Your task to perform on an android device: Open the calendar and show me this week's events Image 0: 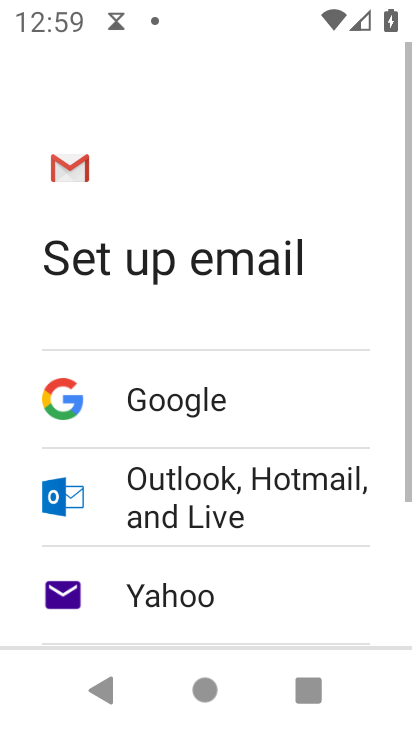
Step 0: press back button
Your task to perform on an android device: Open the calendar and show me this week's events Image 1: 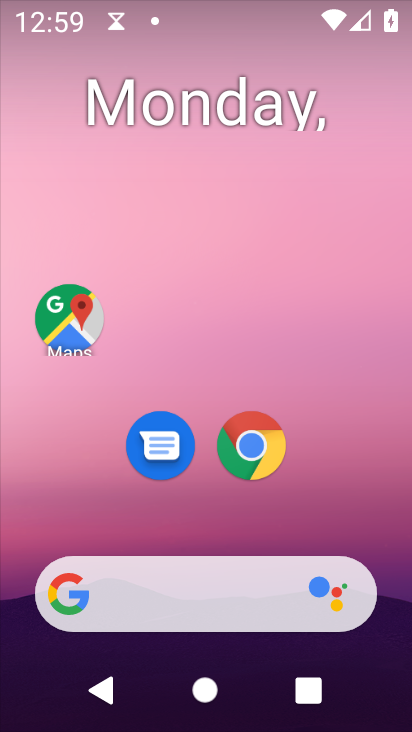
Step 1: drag from (312, 611) to (176, 307)
Your task to perform on an android device: Open the calendar and show me this week's events Image 2: 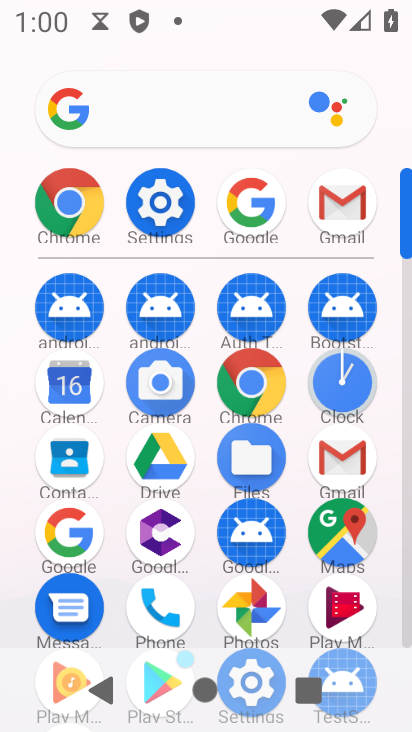
Step 2: click (70, 380)
Your task to perform on an android device: Open the calendar and show me this week's events Image 3: 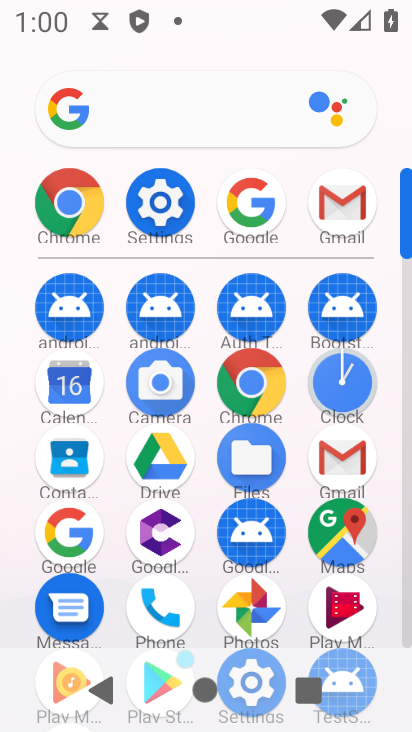
Step 3: click (70, 380)
Your task to perform on an android device: Open the calendar and show me this week's events Image 4: 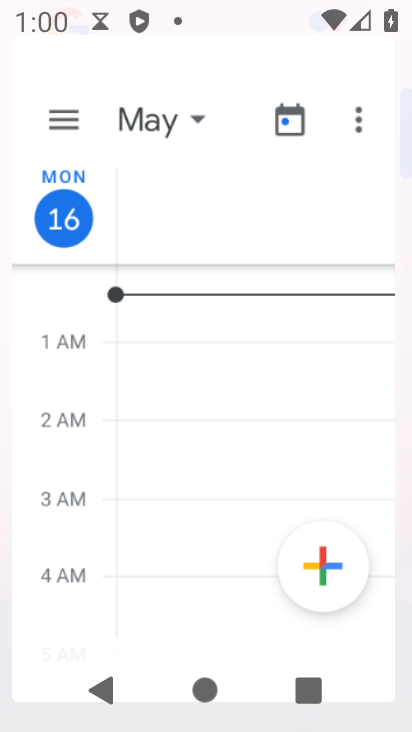
Step 4: click (69, 380)
Your task to perform on an android device: Open the calendar and show me this week's events Image 5: 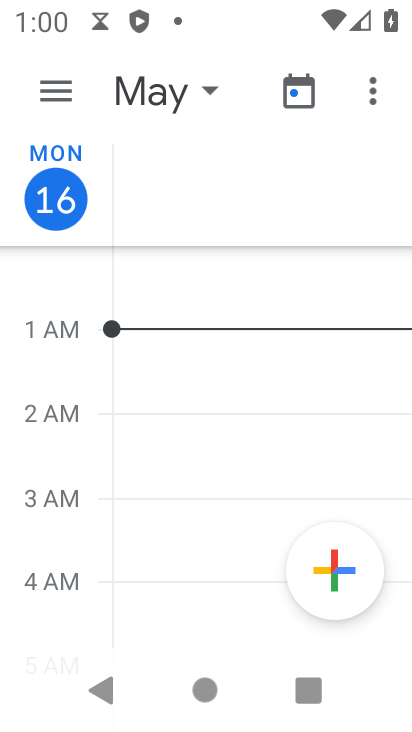
Step 5: click (49, 93)
Your task to perform on an android device: Open the calendar and show me this week's events Image 6: 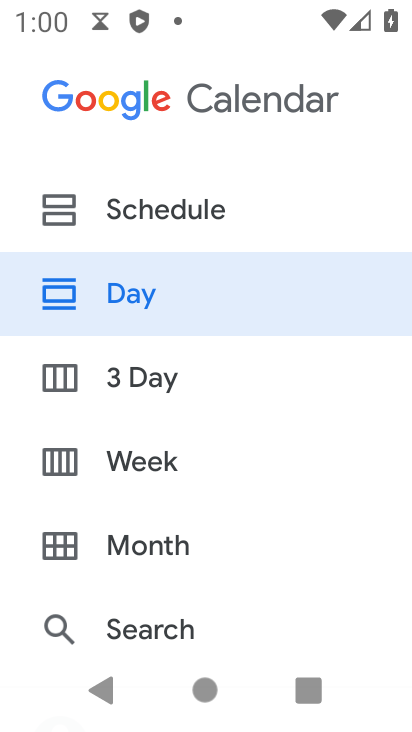
Step 6: click (152, 202)
Your task to perform on an android device: Open the calendar and show me this week's events Image 7: 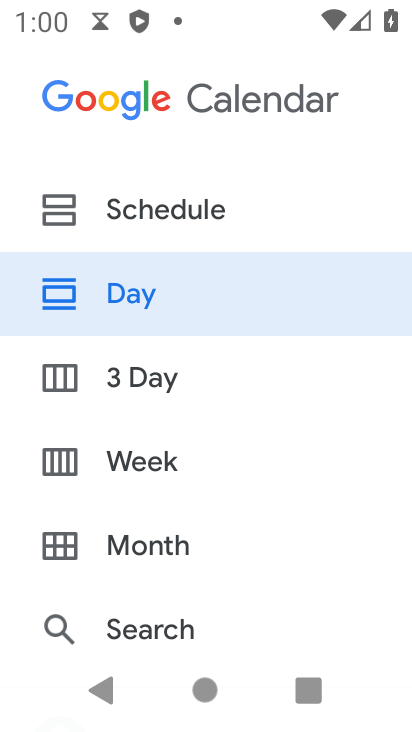
Step 7: click (152, 202)
Your task to perform on an android device: Open the calendar and show me this week's events Image 8: 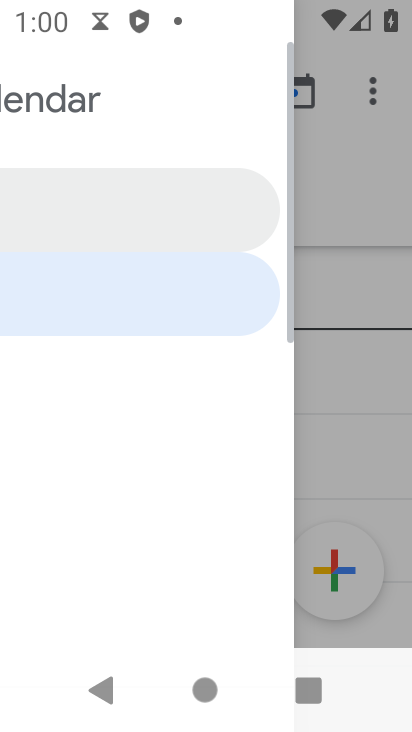
Step 8: click (152, 203)
Your task to perform on an android device: Open the calendar and show me this week's events Image 9: 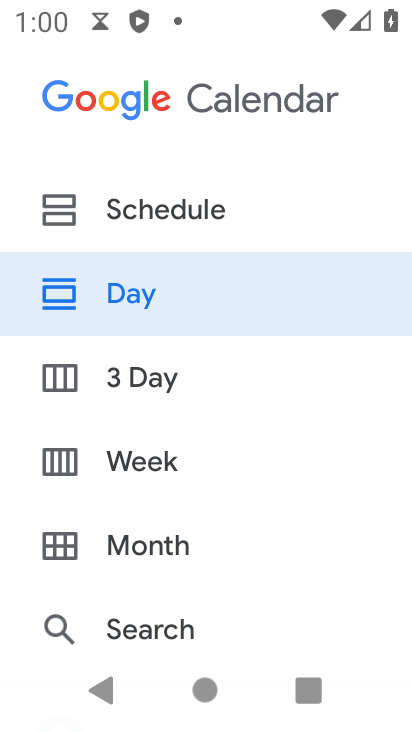
Step 9: click (152, 213)
Your task to perform on an android device: Open the calendar and show me this week's events Image 10: 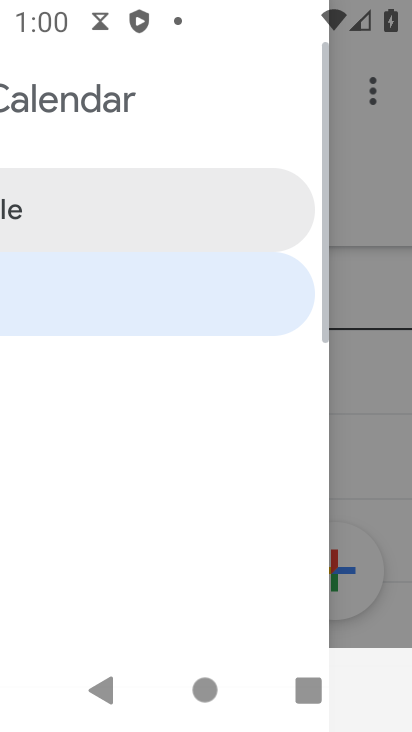
Step 10: click (154, 215)
Your task to perform on an android device: Open the calendar and show me this week's events Image 11: 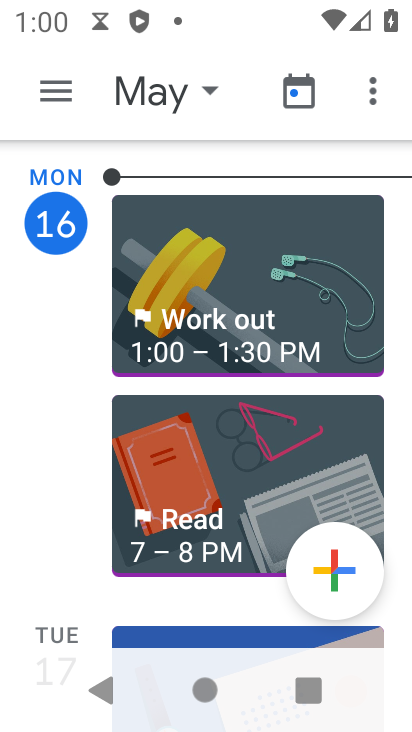
Step 11: drag from (180, 528) to (147, 161)
Your task to perform on an android device: Open the calendar and show me this week's events Image 12: 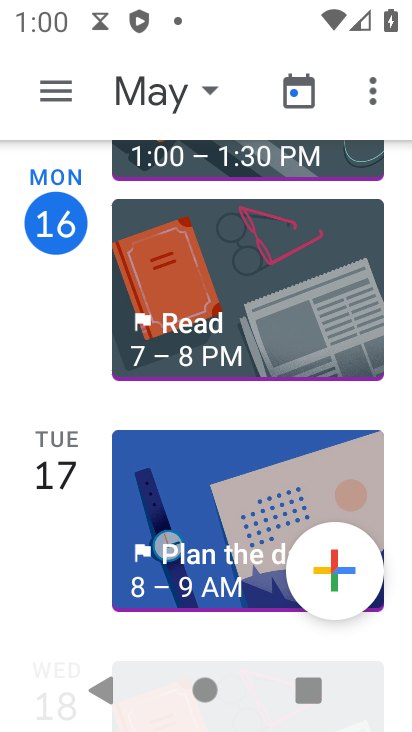
Step 12: drag from (252, 497) to (228, 179)
Your task to perform on an android device: Open the calendar and show me this week's events Image 13: 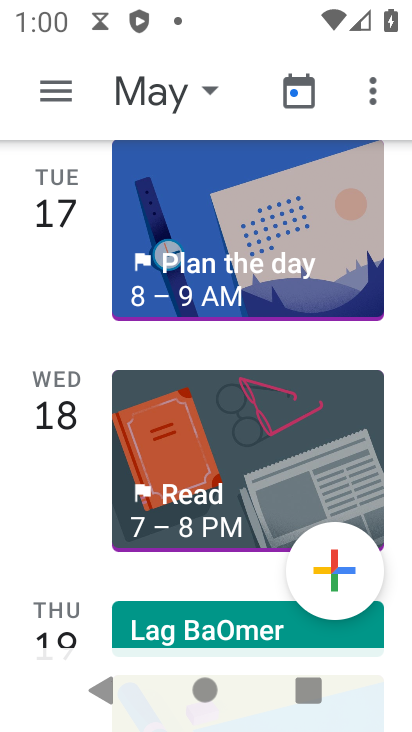
Step 13: drag from (237, 417) to (320, 62)
Your task to perform on an android device: Open the calendar and show me this week's events Image 14: 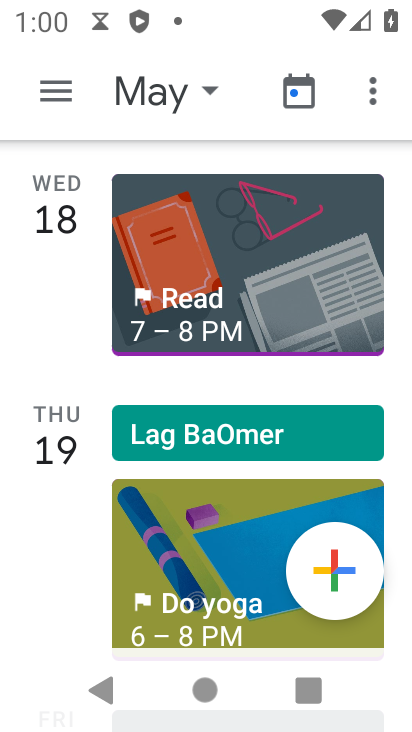
Step 14: drag from (212, 522) to (278, 108)
Your task to perform on an android device: Open the calendar and show me this week's events Image 15: 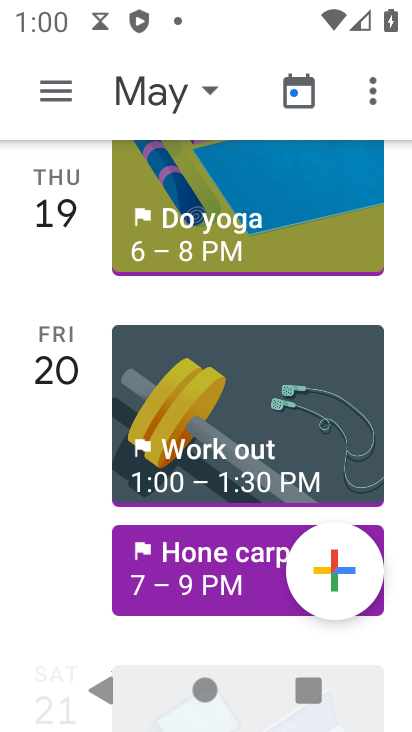
Step 15: drag from (193, 527) to (237, 162)
Your task to perform on an android device: Open the calendar and show me this week's events Image 16: 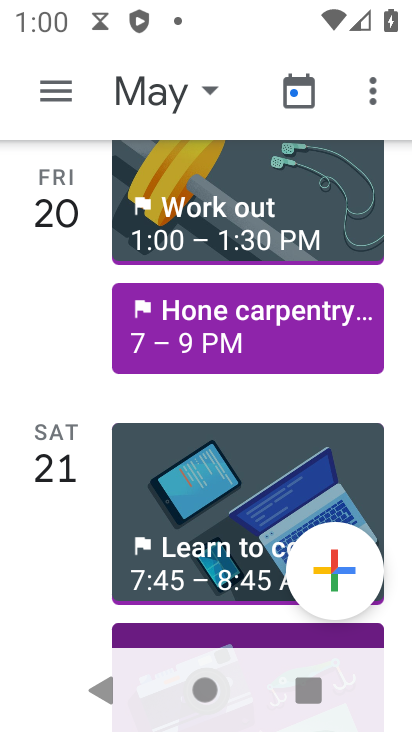
Step 16: click (207, 504)
Your task to perform on an android device: Open the calendar and show me this week's events Image 17: 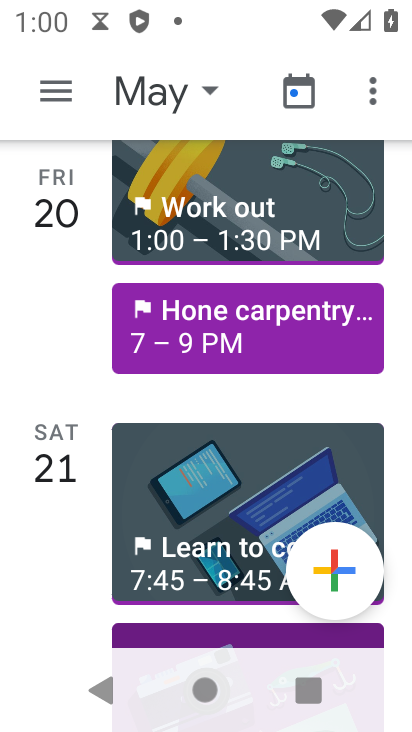
Step 17: click (207, 504)
Your task to perform on an android device: Open the calendar and show me this week's events Image 18: 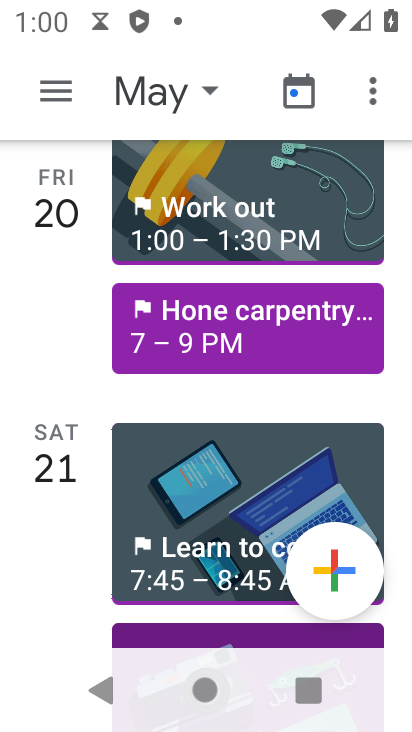
Step 18: click (206, 505)
Your task to perform on an android device: Open the calendar and show me this week's events Image 19: 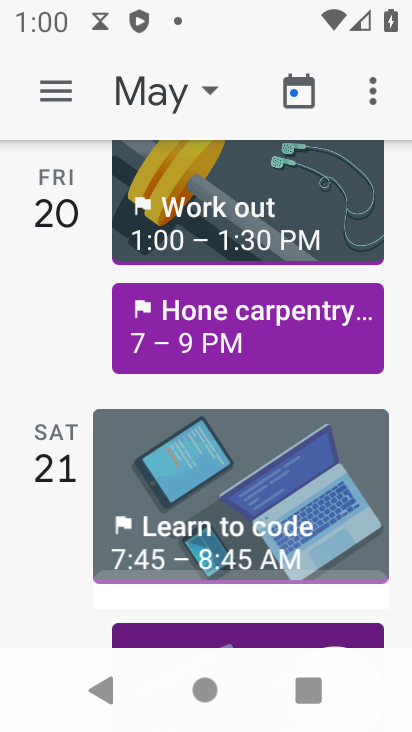
Step 19: click (206, 505)
Your task to perform on an android device: Open the calendar and show me this week's events Image 20: 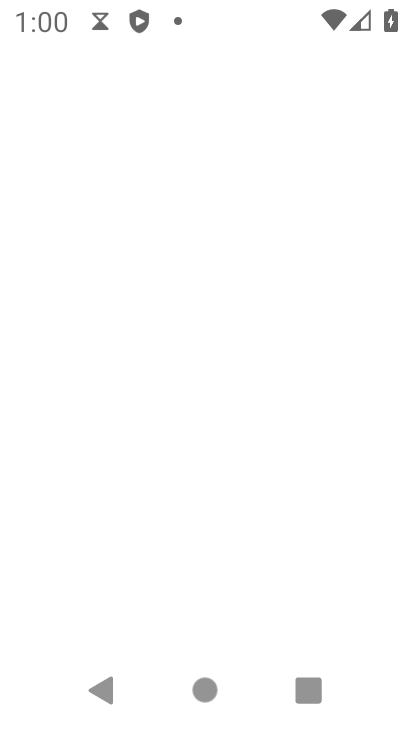
Step 20: click (206, 505)
Your task to perform on an android device: Open the calendar and show me this week's events Image 21: 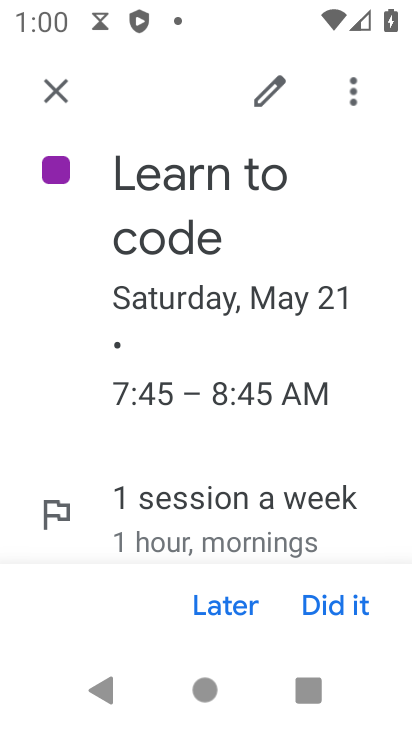
Step 21: click (56, 88)
Your task to perform on an android device: Open the calendar and show me this week's events Image 22: 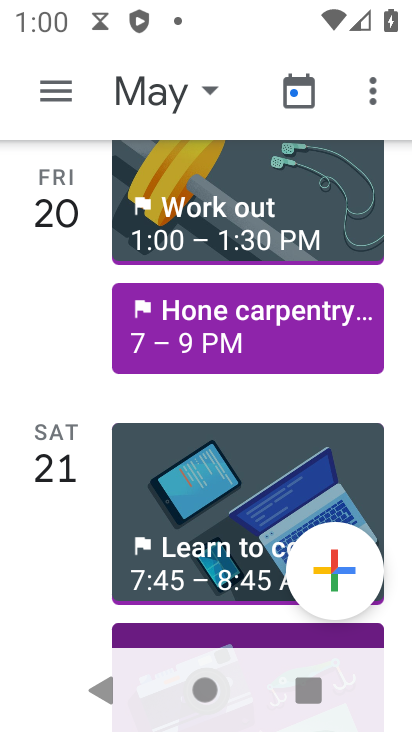
Step 22: task complete